Your task to perform on an android device: delete the emails in spam in the gmail app Image 0: 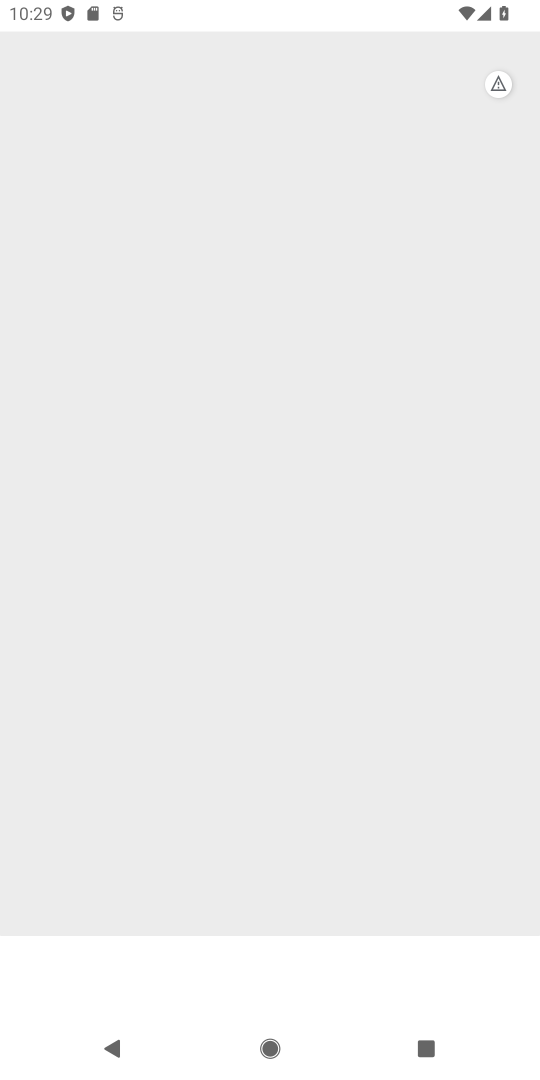
Step 0: press home button
Your task to perform on an android device: delete the emails in spam in the gmail app Image 1: 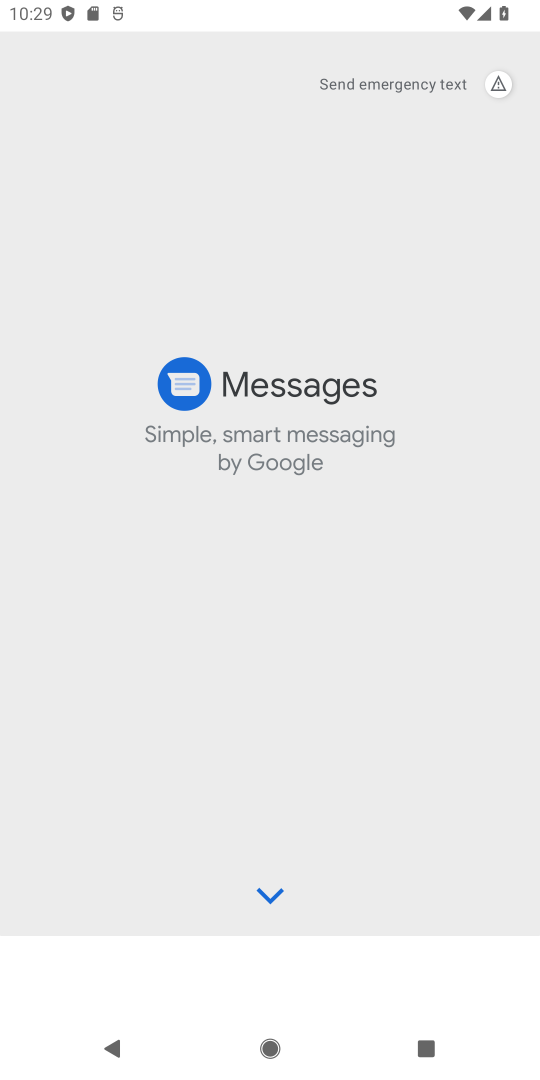
Step 1: press home button
Your task to perform on an android device: delete the emails in spam in the gmail app Image 2: 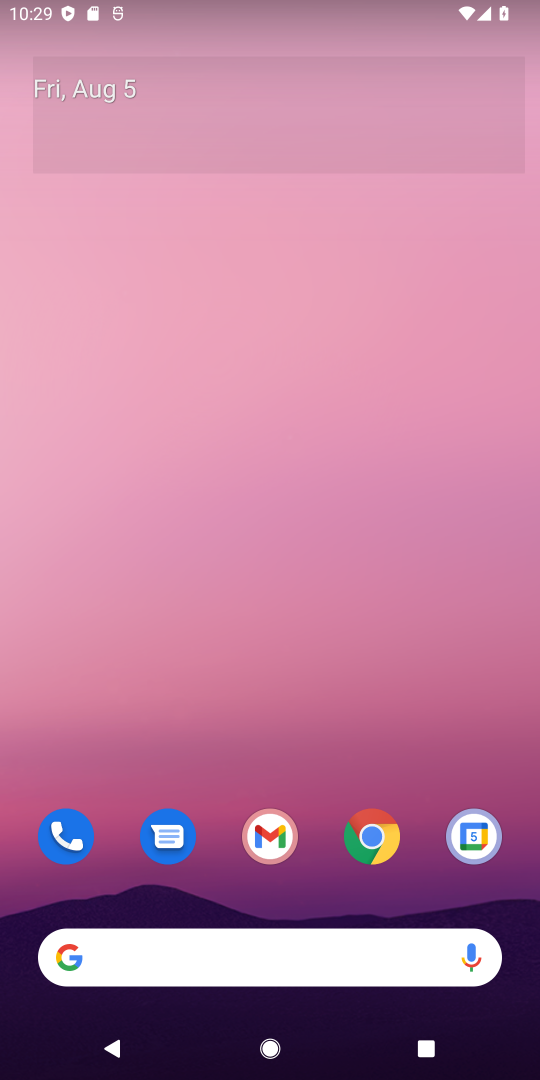
Step 2: drag from (344, 430) to (359, 112)
Your task to perform on an android device: delete the emails in spam in the gmail app Image 3: 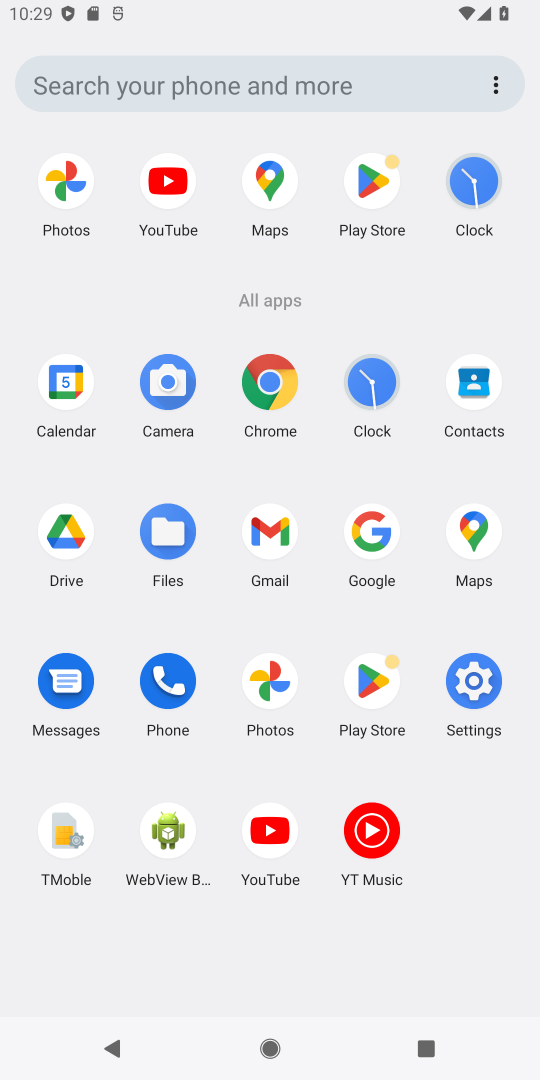
Step 3: click (270, 536)
Your task to perform on an android device: delete the emails in spam in the gmail app Image 4: 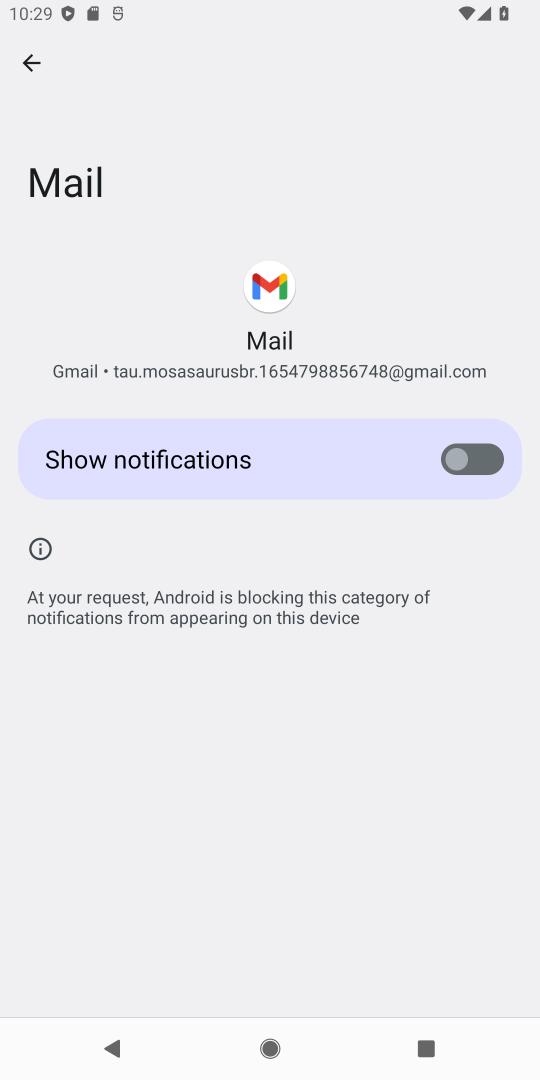
Step 4: press back button
Your task to perform on an android device: delete the emails in spam in the gmail app Image 5: 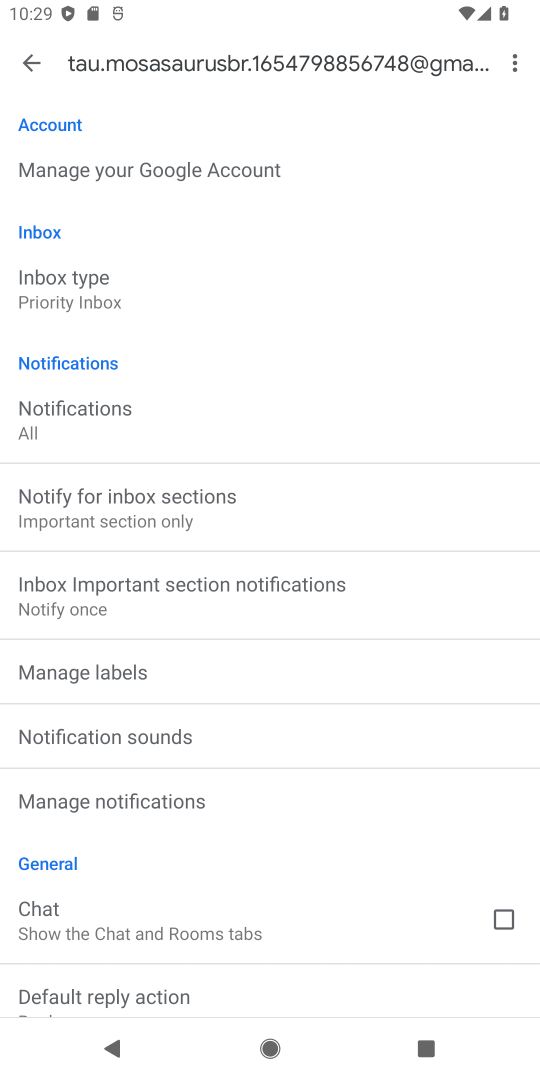
Step 5: press back button
Your task to perform on an android device: delete the emails in spam in the gmail app Image 6: 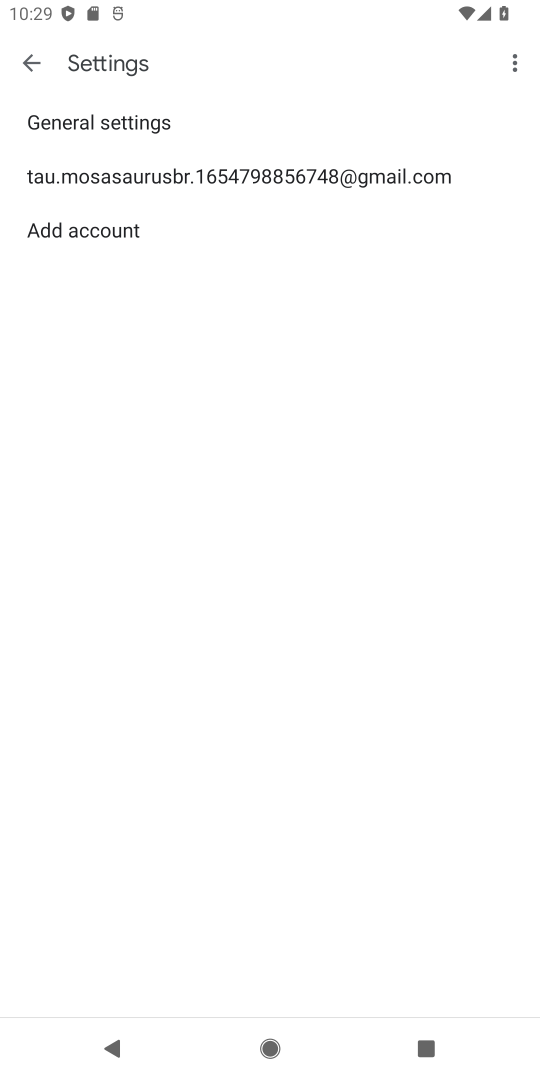
Step 6: click (41, 73)
Your task to perform on an android device: delete the emails in spam in the gmail app Image 7: 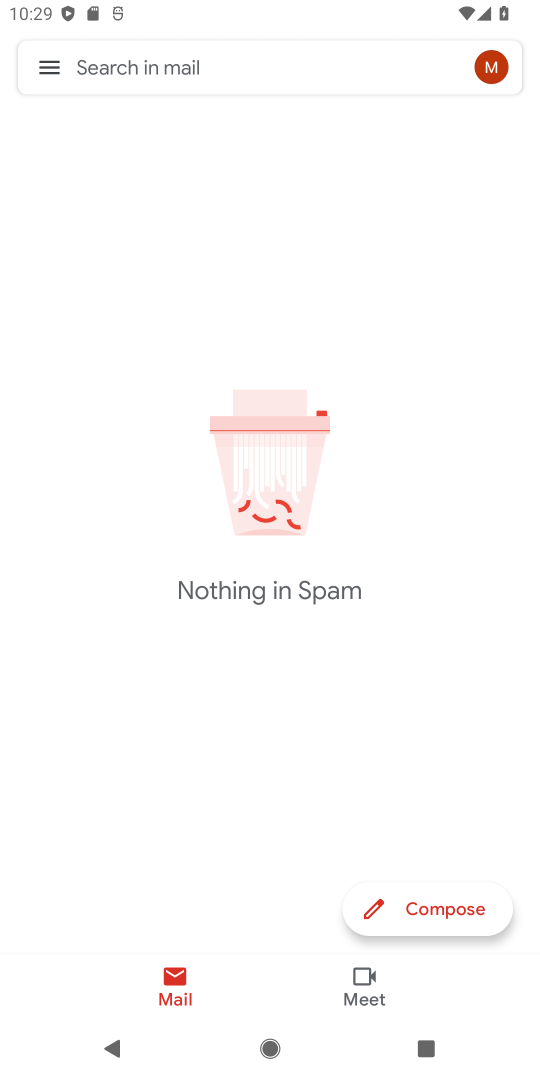
Step 7: task complete